Your task to perform on an android device: turn off notifications in google photos Image 0: 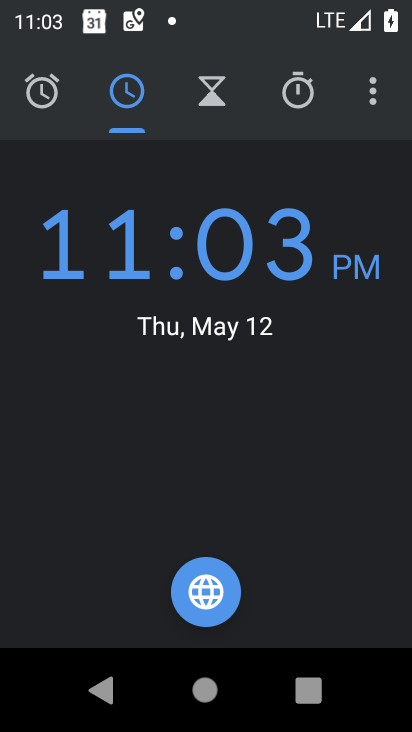
Step 0: press home button
Your task to perform on an android device: turn off notifications in google photos Image 1: 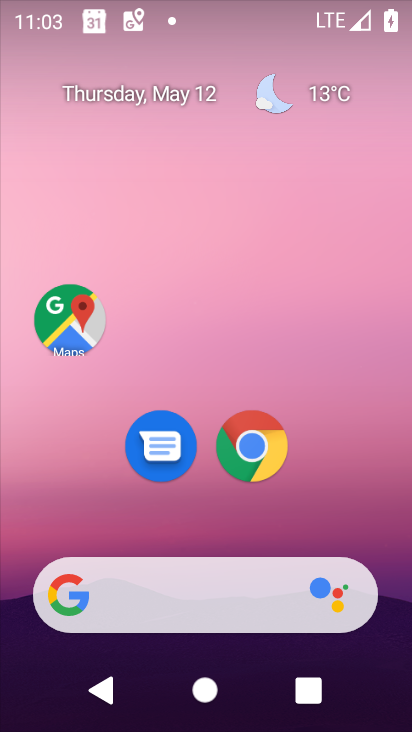
Step 1: drag from (244, 562) to (298, 54)
Your task to perform on an android device: turn off notifications in google photos Image 2: 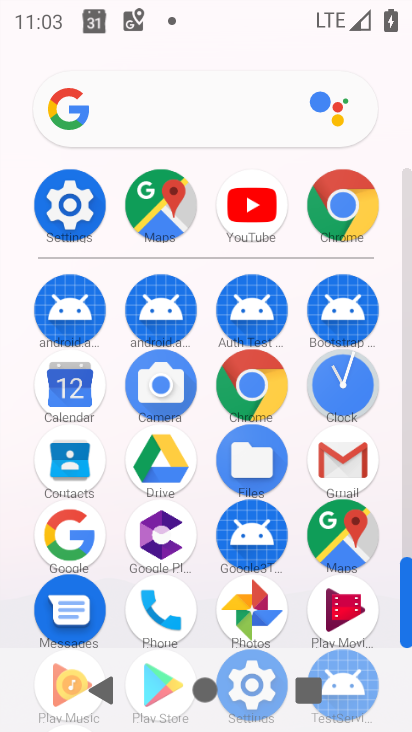
Step 2: click (249, 597)
Your task to perform on an android device: turn off notifications in google photos Image 3: 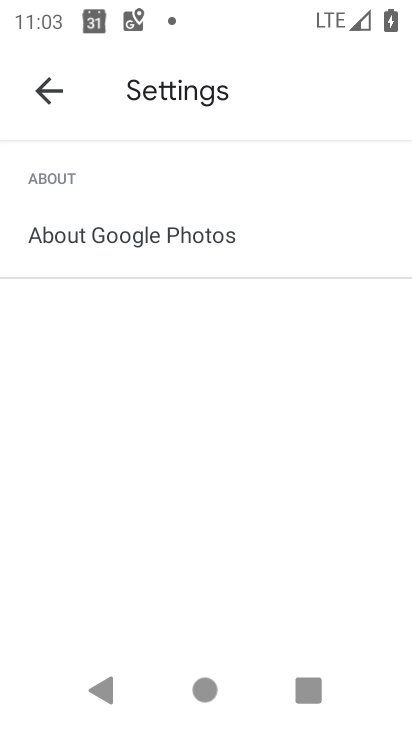
Step 3: press back button
Your task to perform on an android device: turn off notifications in google photos Image 4: 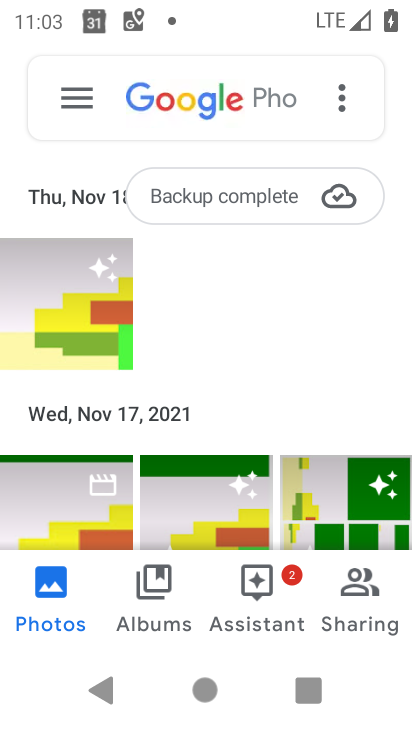
Step 4: click (73, 86)
Your task to perform on an android device: turn off notifications in google photos Image 5: 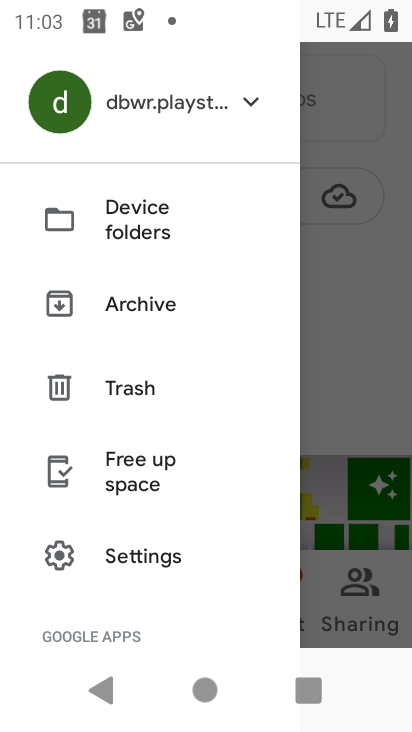
Step 5: click (204, 557)
Your task to perform on an android device: turn off notifications in google photos Image 6: 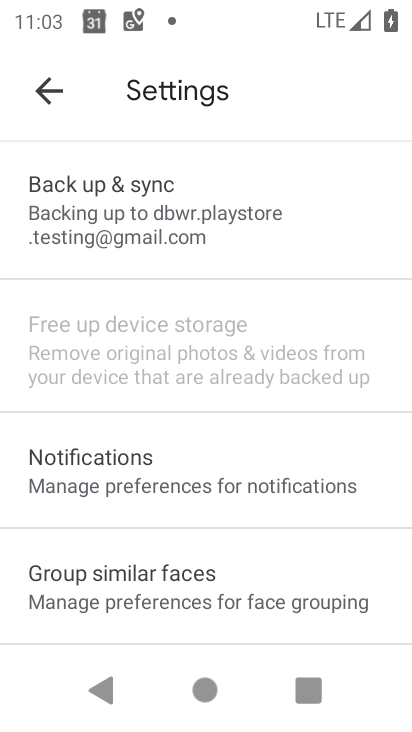
Step 6: click (194, 496)
Your task to perform on an android device: turn off notifications in google photos Image 7: 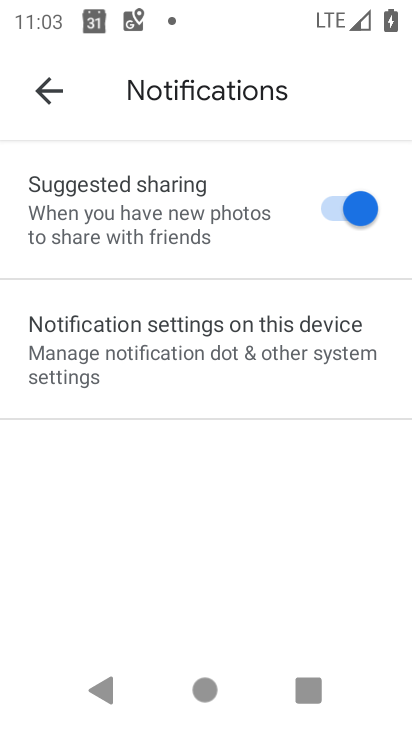
Step 7: click (214, 324)
Your task to perform on an android device: turn off notifications in google photos Image 8: 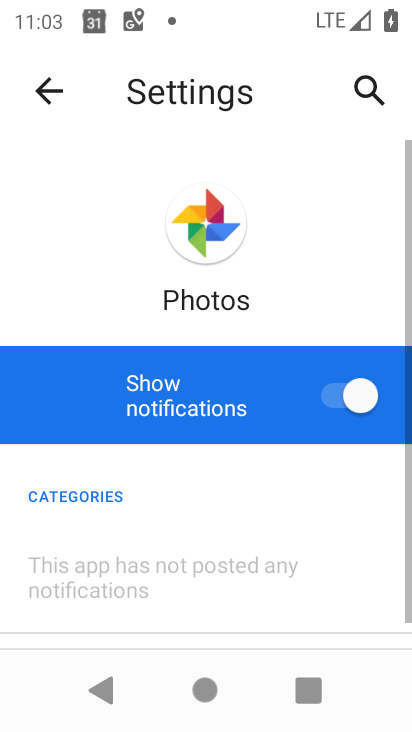
Step 8: click (332, 390)
Your task to perform on an android device: turn off notifications in google photos Image 9: 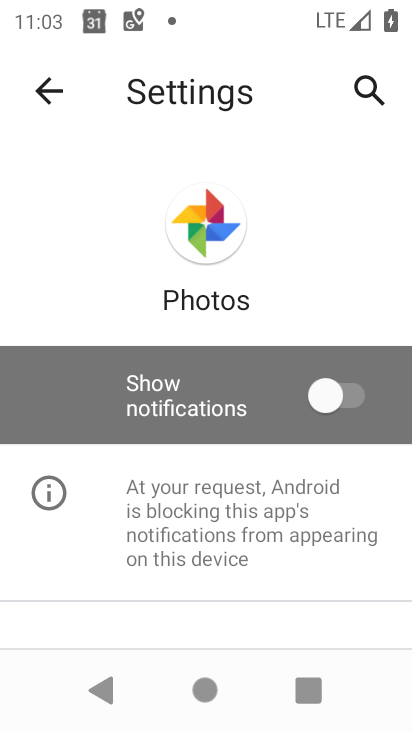
Step 9: task complete